Your task to perform on an android device: Open the stopwatch Image 0: 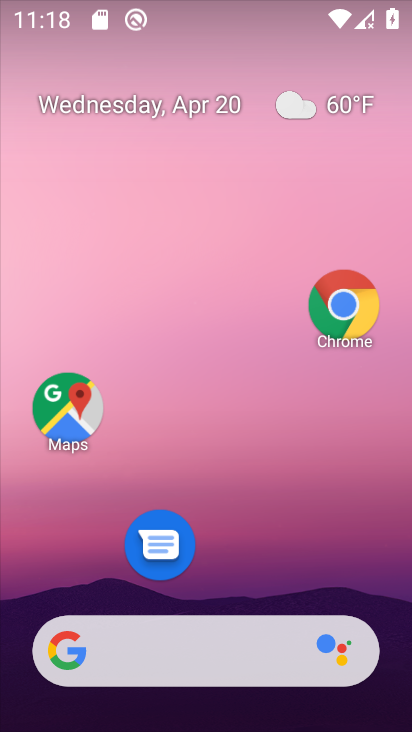
Step 0: drag from (211, 568) to (217, 0)
Your task to perform on an android device: Open the stopwatch Image 1: 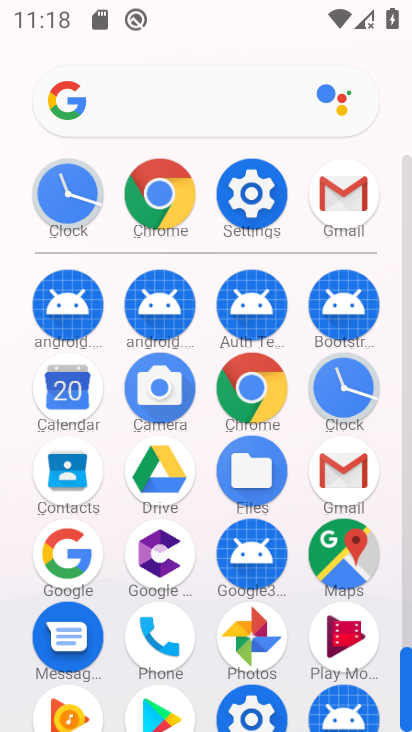
Step 1: click (346, 409)
Your task to perform on an android device: Open the stopwatch Image 2: 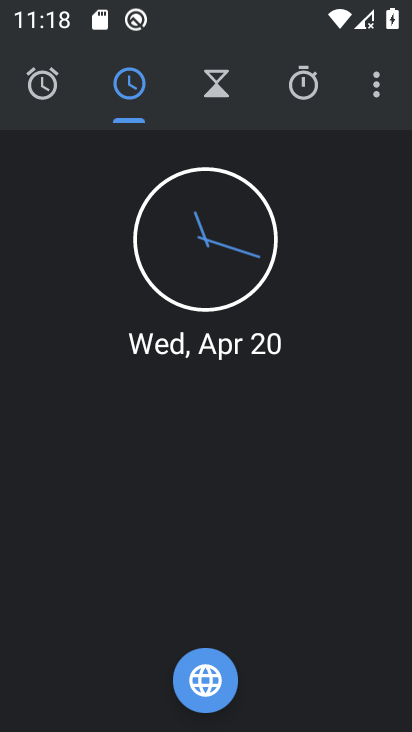
Step 2: click (308, 95)
Your task to perform on an android device: Open the stopwatch Image 3: 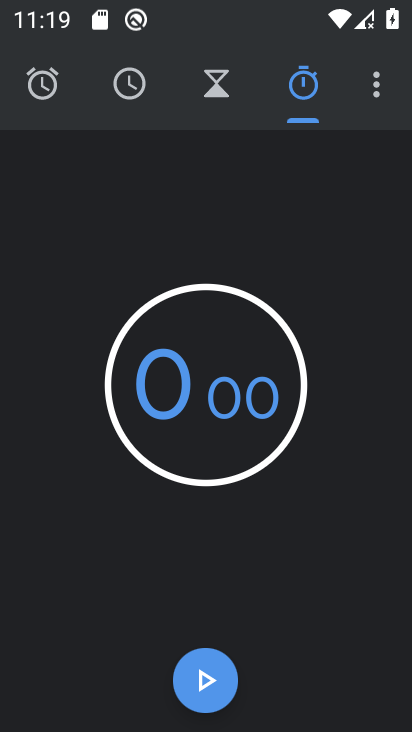
Step 3: task complete